Your task to perform on an android device: turn on bluetooth scan Image 0: 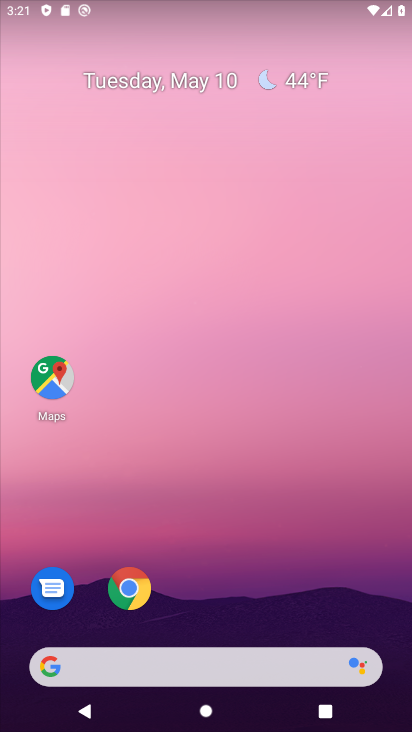
Step 0: drag from (255, 586) to (200, 88)
Your task to perform on an android device: turn on bluetooth scan Image 1: 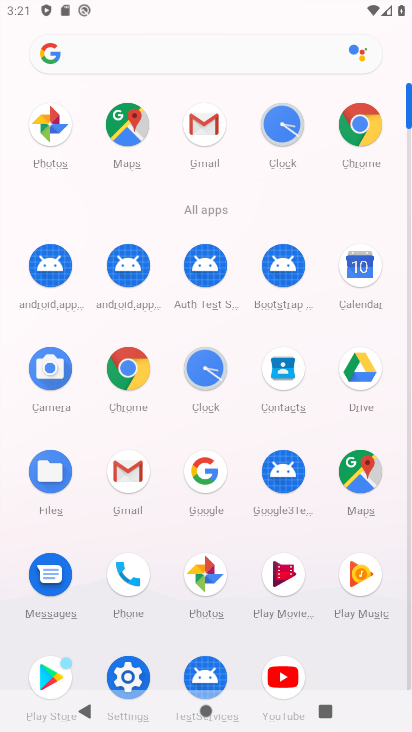
Step 1: click (132, 666)
Your task to perform on an android device: turn on bluetooth scan Image 2: 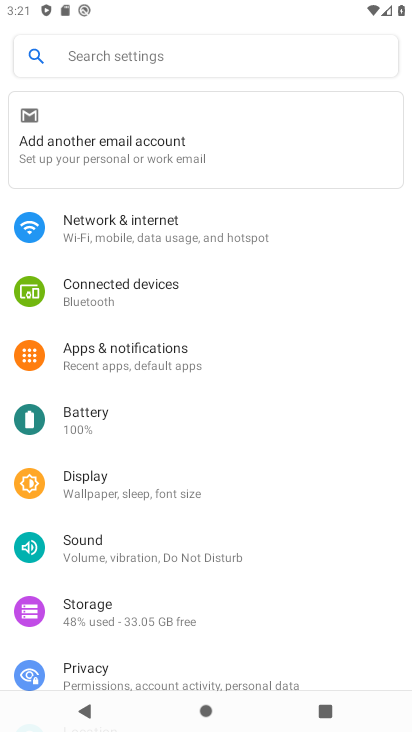
Step 2: drag from (244, 644) to (185, 257)
Your task to perform on an android device: turn on bluetooth scan Image 3: 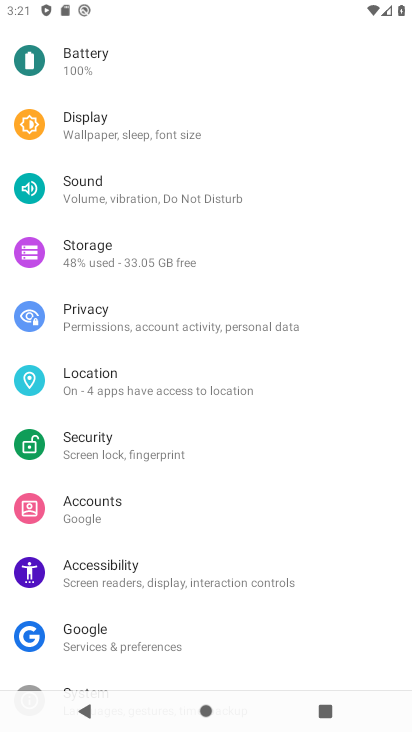
Step 3: click (119, 389)
Your task to perform on an android device: turn on bluetooth scan Image 4: 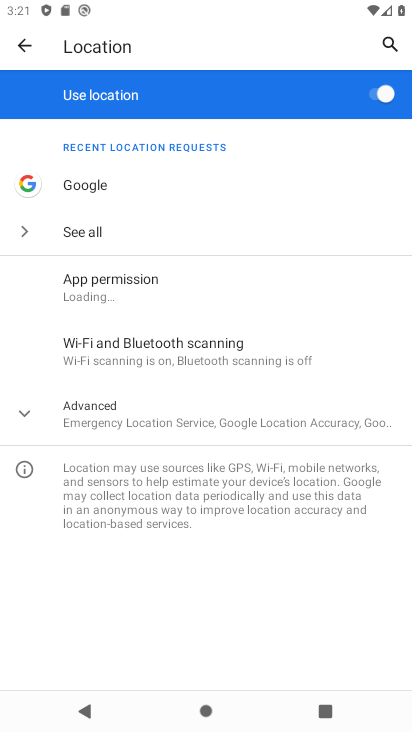
Step 4: click (189, 349)
Your task to perform on an android device: turn on bluetooth scan Image 5: 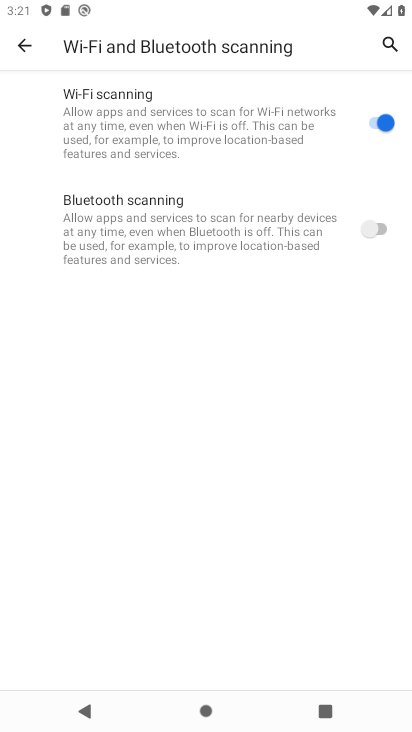
Step 5: click (376, 219)
Your task to perform on an android device: turn on bluetooth scan Image 6: 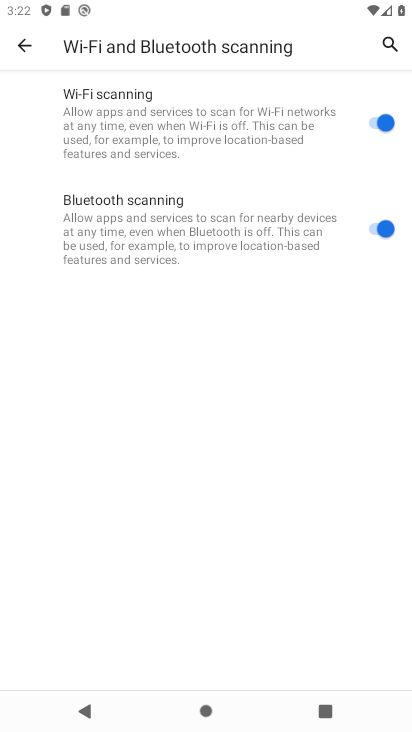
Step 6: task complete